Your task to perform on an android device: remove spam from my inbox in the gmail app Image 0: 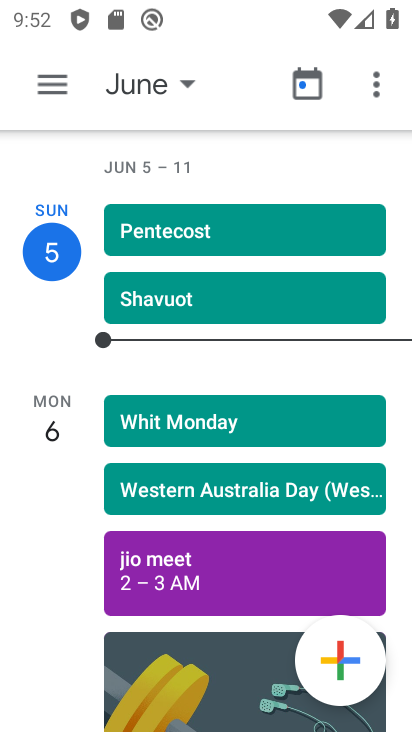
Step 0: task complete